Your task to perform on an android device: Go to eBay Image 0: 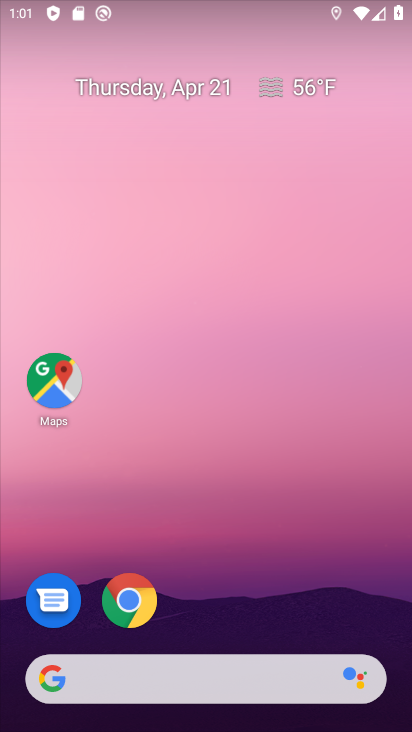
Step 0: drag from (359, 526) to (341, 279)
Your task to perform on an android device: Go to eBay Image 1: 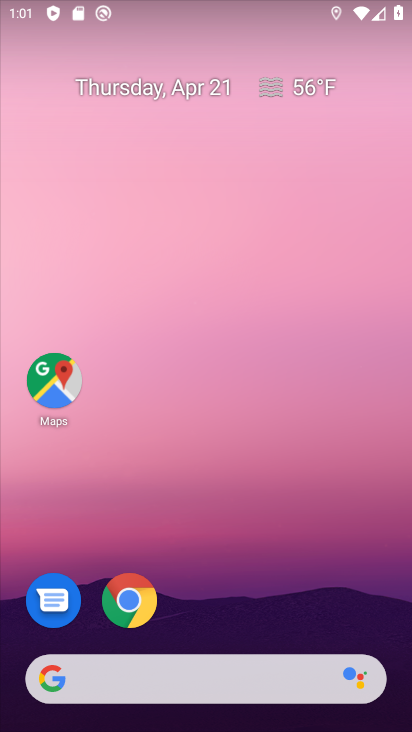
Step 1: click (137, 600)
Your task to perform on an android device: Go to eBay Image 2: 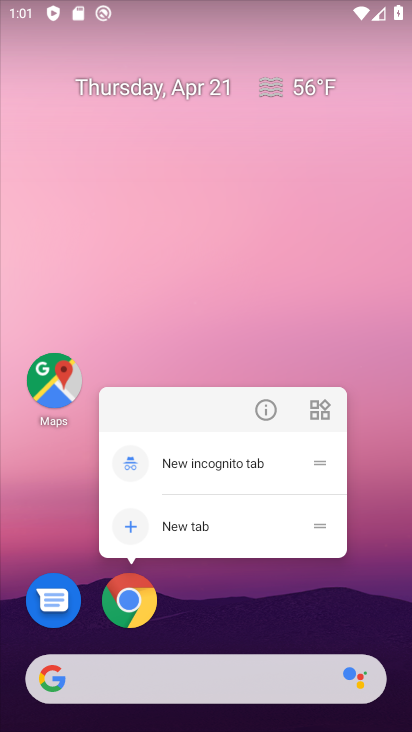
Step 2: click (128, 599)
Your task to perform on an android device: Go to eBay Image 3: 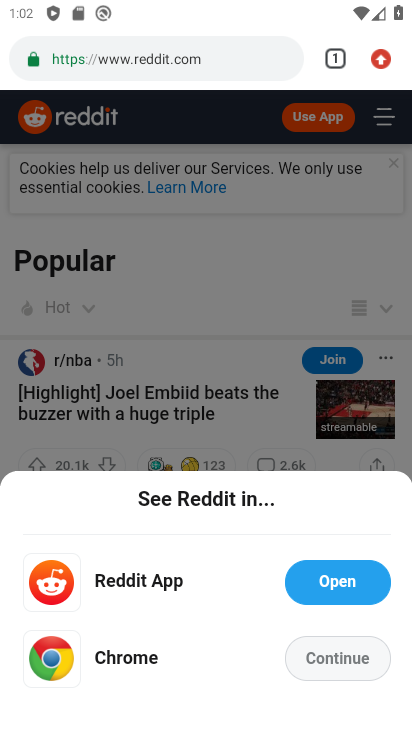
Step 3: click (223, 55)
Your task to perform on an android device: Go to eBay Image 4: 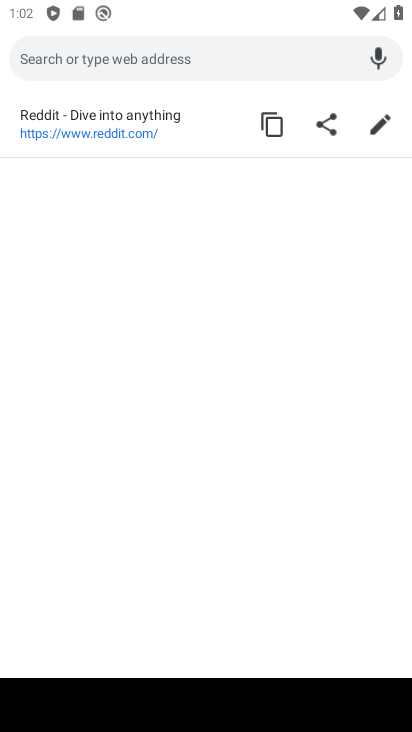
Step 4: type " eBay"
Your task to perform on an android device: Go to eBay Image 5: 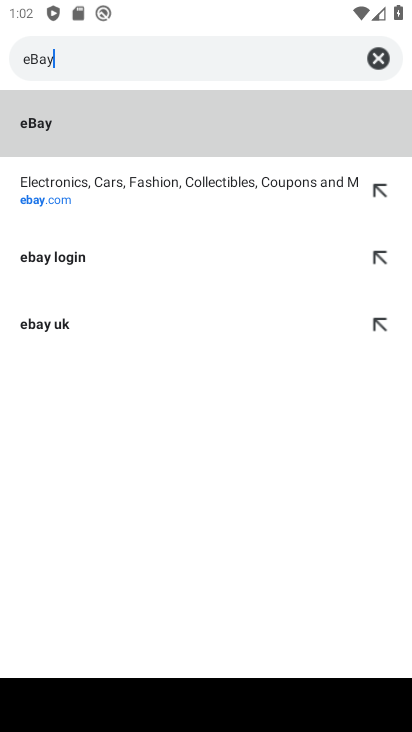
Step 5: click (41, 120)
Your task to perform on an android device: Go to eBay Image 6: 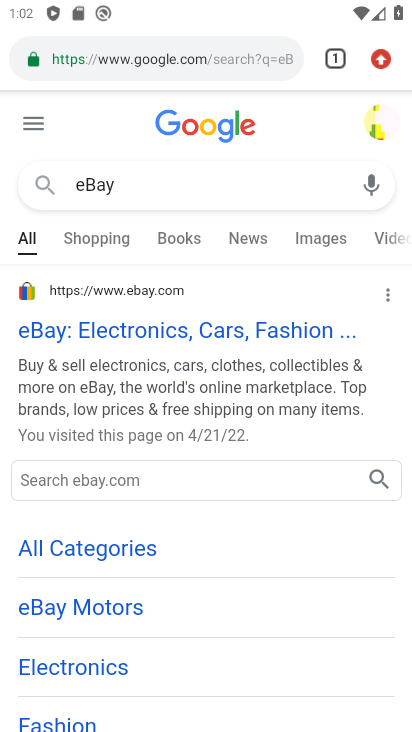
Step 6: task complete